Your task to perform on an android device: Show the shopping cart on amazon.com. Search for "corsair k70" on amazon.com, select the first entry, and add it to the cart. Image 0: 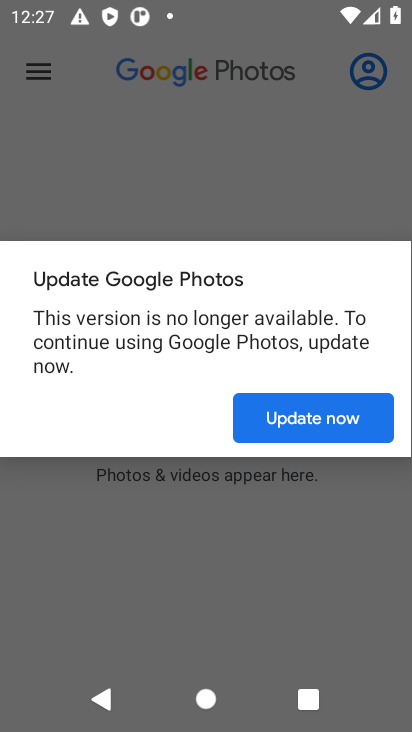
Step 0: press home button
Your task to perform on an android device: Show the shopping cart on amazon.com. Search for "corsair k70" on amazon.com, select the first entry, and add it to the cart. Image 1: 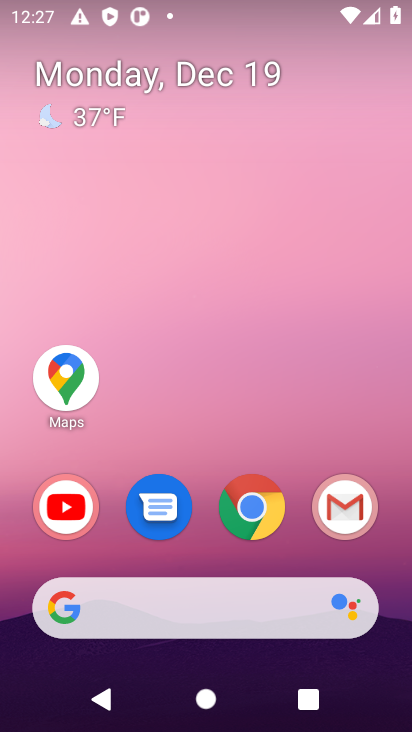
Step 1: click (256, 509)
Your task to perform on an android device: Show the shopping cart on amazon.com. Search for "corsair k70" on amazon.com, select the first entry, and add it to the cart. Image 2: 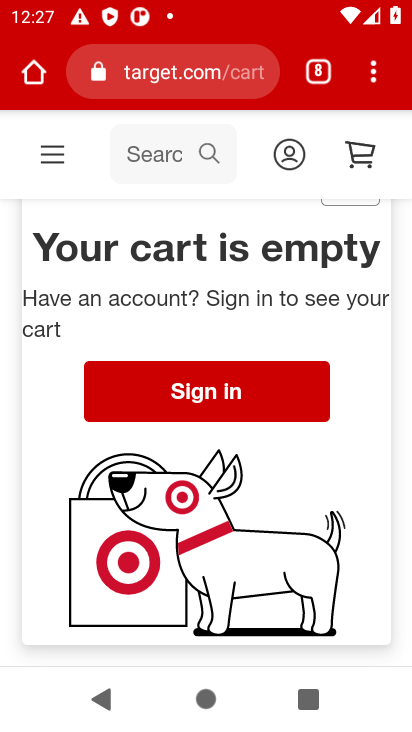
Step 2: click (172, 72)
Your task to perform on an android device: Show the shopping cart on amazon.com. Search for "corsair k70" on amazon.com, select the first entry, and add it to the cart. Image 3: 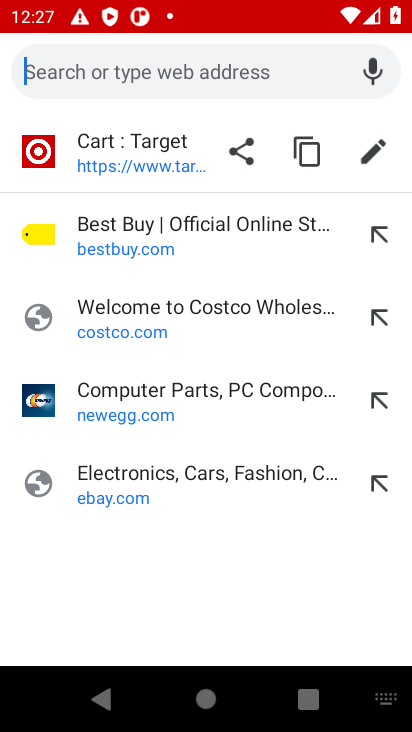
Step 3: type "amazon.com"
Your task to perform on an android device: Show the shopping cart on amazon.com. Search for "corsair k70" on amazon.com, select the first entry, and add it to the cart. Image 4: 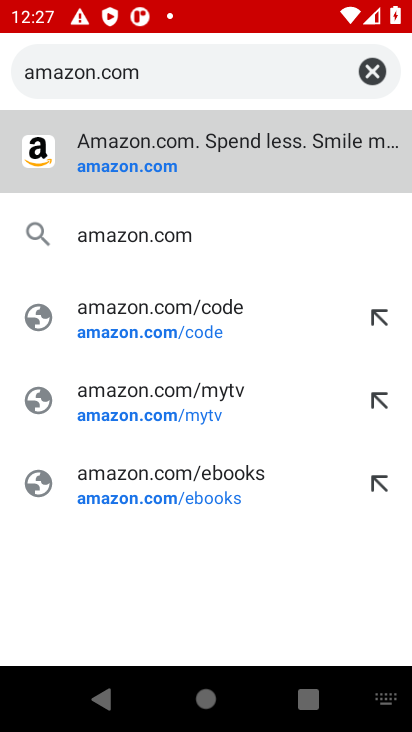
Step 4: click (125, 172)
Your task to perform on an android device: Show the shopping cart on amazon.com. Search for "corsair k70" on amazon.com, select the first entry, and add it to the cart. Image 5: 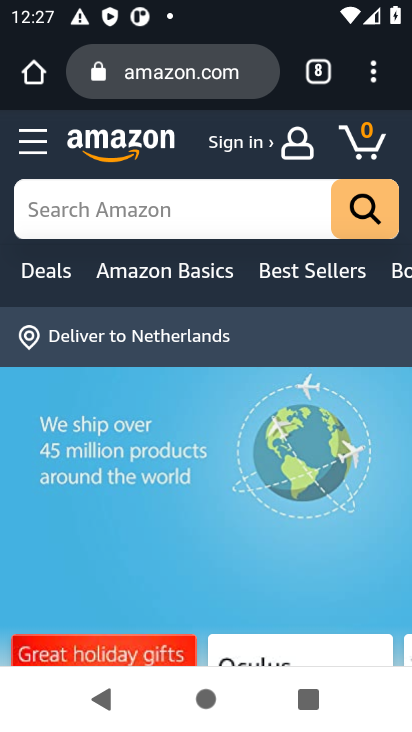
Step 5: click (356, 142)
Your task to perform on an android device: Show the shopping cart on amazon.com. Search for "corsair k70" on amazon.com, select the first entry, and add it to the cart. Image 6: 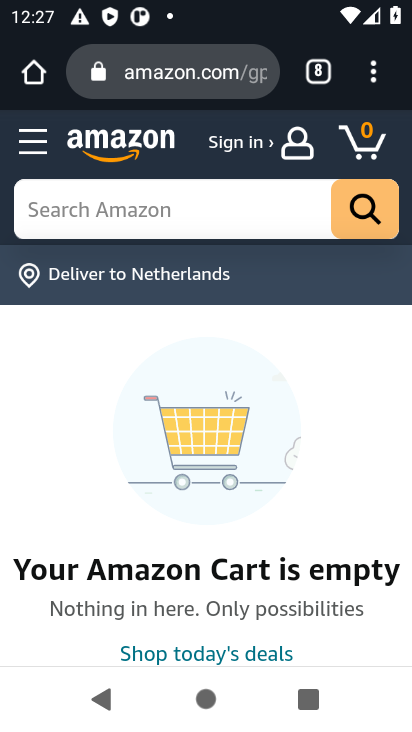
Step 6: drag from (235, 468) to (255, 222)
Your task to perform on an android device: Show the shopping cart on amazon.com. Search for "corsair k70" on amazon.com, select the first entry, and add it to the cart. Image 7: 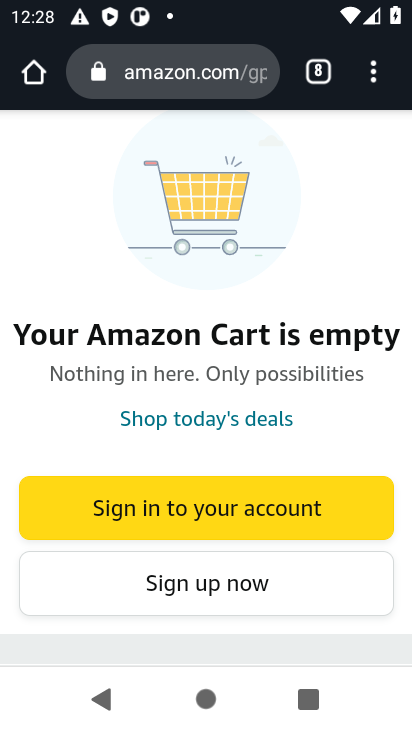
Step 7: drag from (239, 340) to (231, 594)
Your task to perform on an android device: Show the shopping cart on amazon.com. Search for "corsair k70" on amazon.com, select the first entry, and add it to the cart. Image 8: 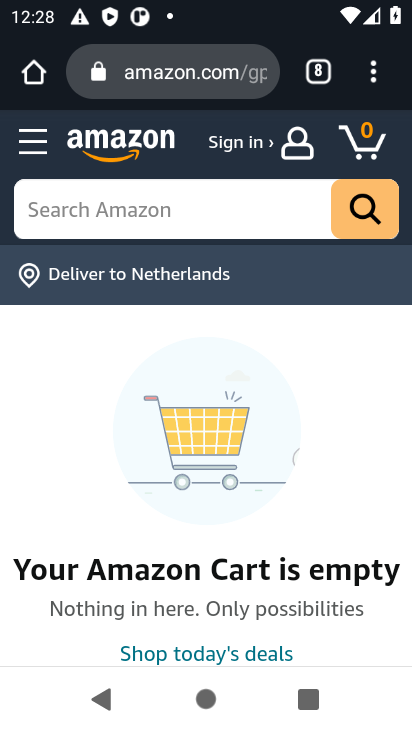
Step 8: click (139, 209)
Your task to perform on an android device: Show the shopping cart on amazon.com. Search for "corsair k70" on amazon.com, select the first entry, and add it to the cart. Image 9: 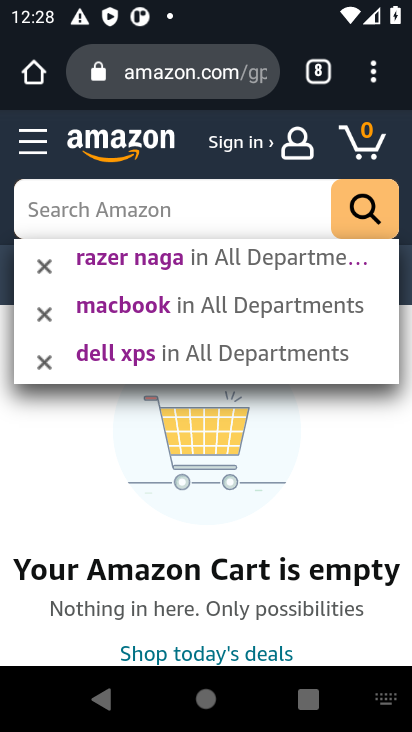
Step 9: type "corsair k70"
Your task to perform on an android device: Show the shopping cart on amazon.com. Search for "corsair k70" on amazon.com, select the first entry, and add it to the cart. Image 10: 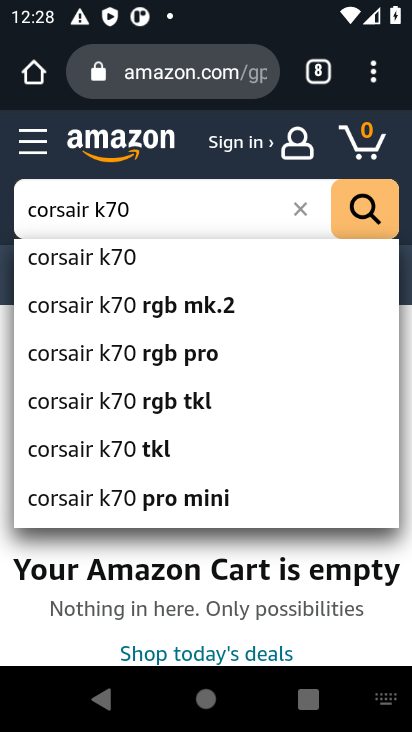
Step 10: click (85, 259)
Your task to perform on an android device: Show the shopping cart on amazon.com. Search for "corsair k70" on amazon.com, select the first entry, and add it to the cart. Image 11: 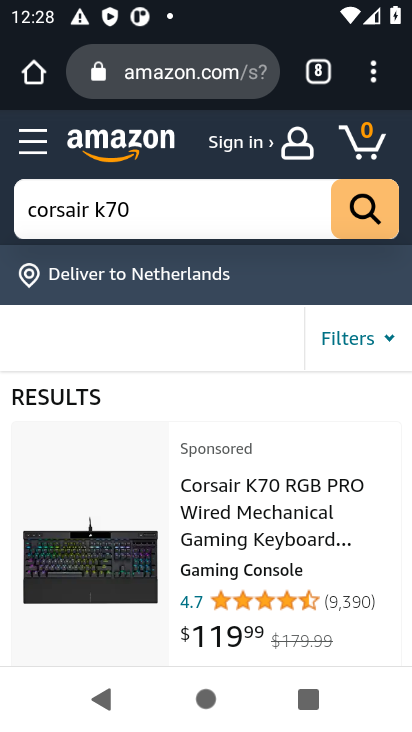
Step 11: drag from (163, 533) to (165, 300)
Your task to perform on an android device: Show the shopping cart on amazon.com. Search for "corsair k70" on amazon.com, select the first entry, and add it to the cart. Image 12: 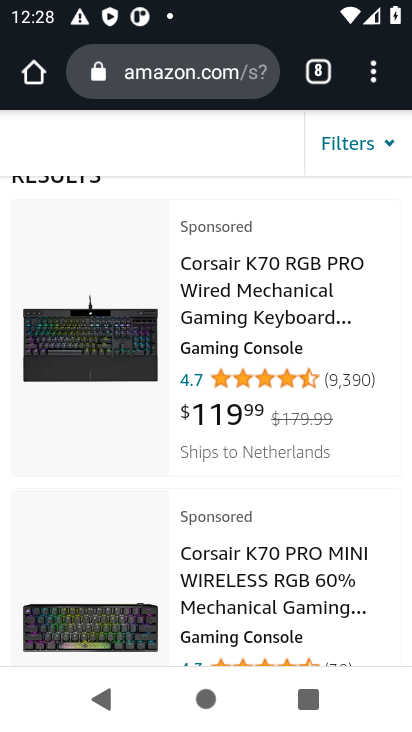
Step 12: click (268, 328)
Your task to perform on an android device: Show the shopping cart on amazon.com. Search for "corsair k70" on amazon.com, select the first entry, and add it to the cart. Image 13: 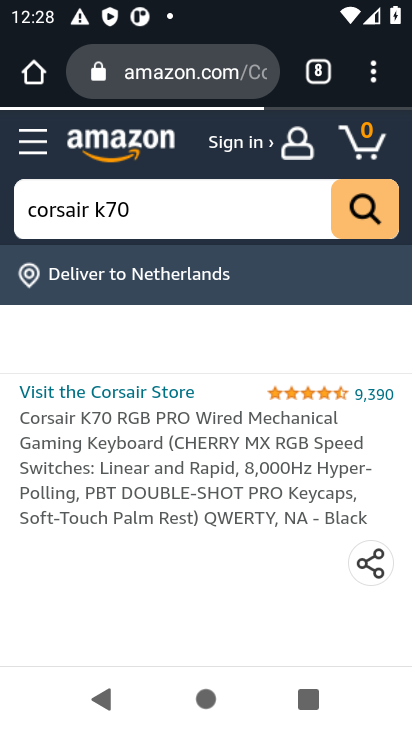
Step 13: drag from (151, 535) to (163, 277)
Your task to perform on an android device: Show the shopping cart on amazon.com. Search for "corsair k70" on amazon.com, select the first entry, and add it to the cart. Image 14: 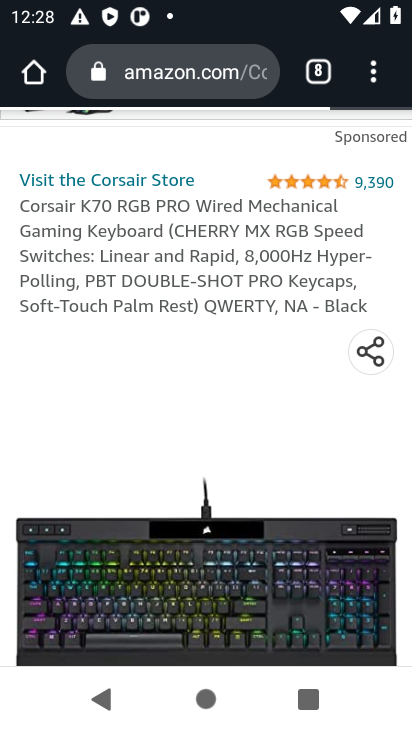
Step 14: drag from (137, 512) to (166, 219)
Your task to perform on an android device: Show the shopping cart on amazon.com. Search for "corsair k70" on amazon.com, select the first entry, and add it to the cart. Image 15: 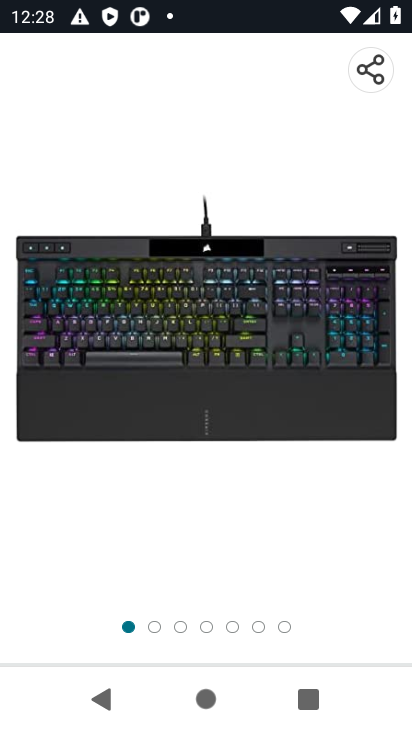
Step 15: drag from (181, 448) to (191, 171)
Your task to perform on an android device: Show the shopping cart on amazon.com. Search for "corsair k70" on amazon.com, select the first entry, and add it to the cart. Image 16: 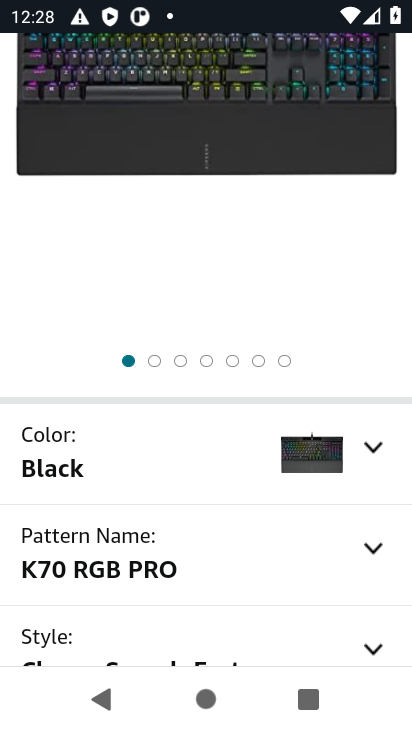
Step 16: drag from (179, 466) to (175, 210)
Your task to perform on an android device: Show the shopping cart on amazon.com. Search for "corsair k70" on amazon.com, select the first entry, and add it to the cart. Image 17: 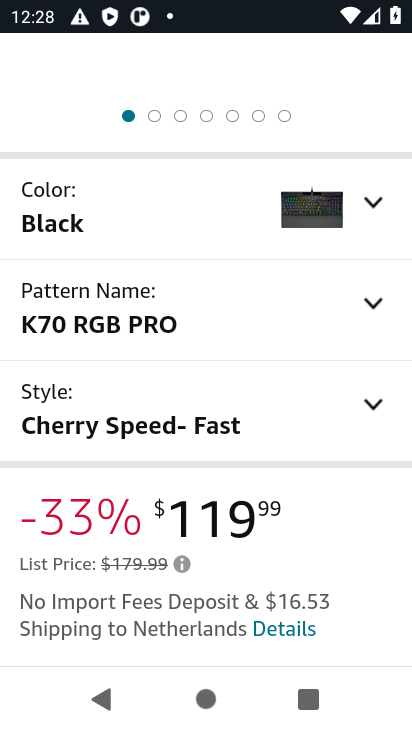
Step 17: drag from (152, 500) to (175, 197)
Your task to perform on an android device: Show the shopping cart on amazon.com. Search for "corsair k70" on amazon.com, select the first entry, and add it to the cart. Image 18: 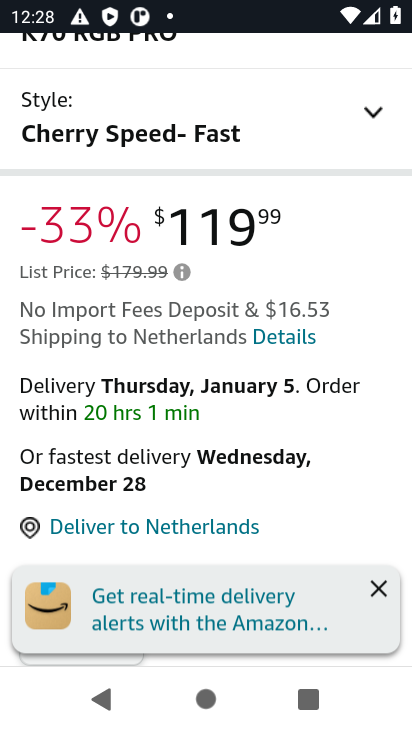
Step 18: drag from (185, 483) to (185, 217)
Your task to perform on an android device: Show the shopping cart on amazon.com. Search for "corsair k70" on amazon.com, select the first entry, and add it to the cart. Image 19: 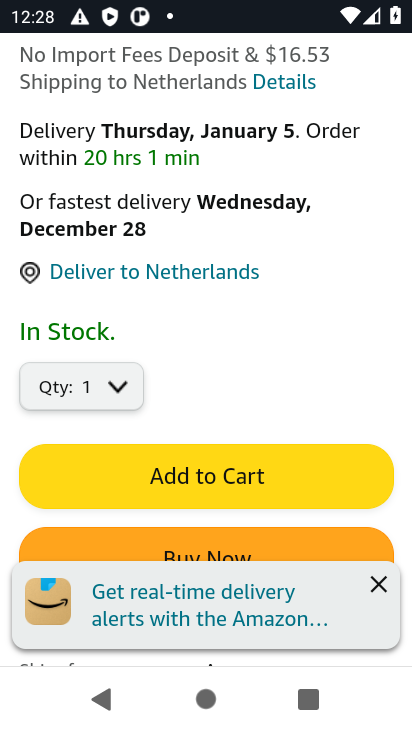
Step 19: click (173, 480)
Your task to perform on an android device: Show the shopping cart on amazon.com. Search for "corsair k70" on amazon.com, select the first entry, and add it to the cart. Image 20: 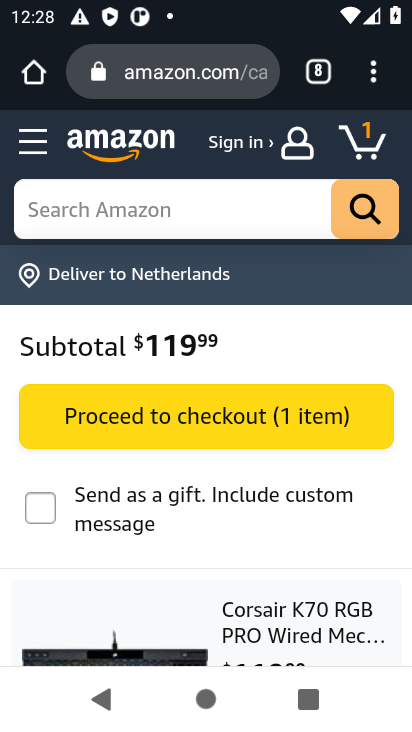
Step 20: task complete